Your task to perform on an android device: turn smart compose on in the gmail app Image 0: 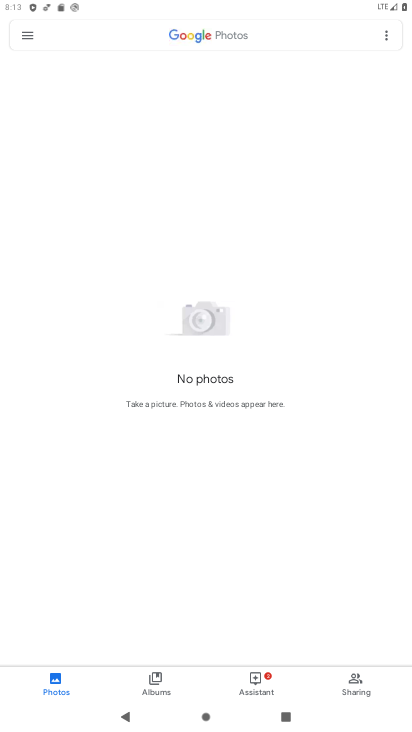
Step 0: press home button
Your task to perform on an android device: turn smart compose on in the gmail app Image 1: 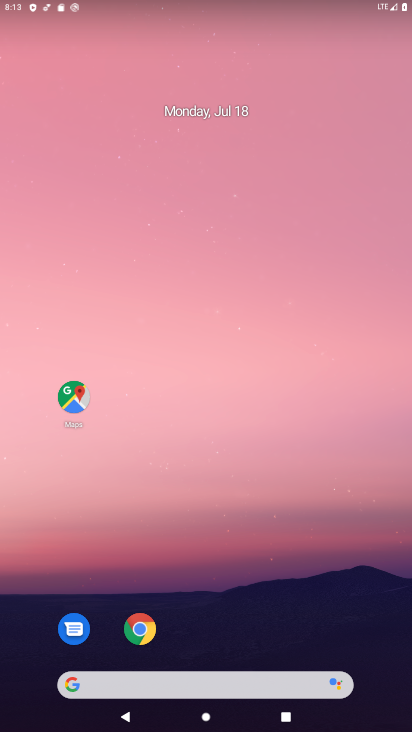
Step 1: drag from (198, 571) to (241, 49)
Your task to perform on an android device: turn smart compose on in the gmail app Image 2: 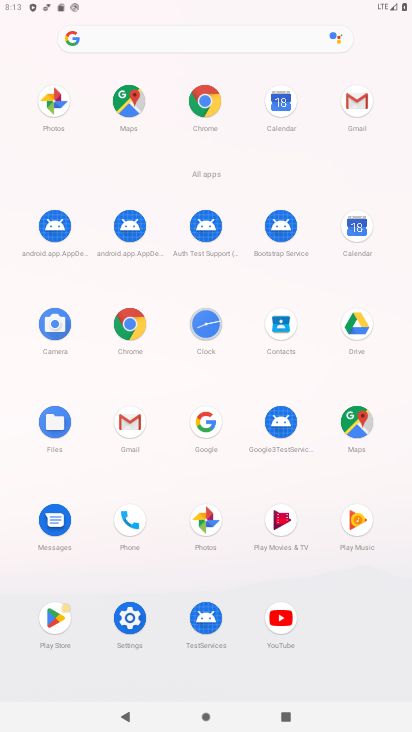
Step 2: click (135, 431)
Your task to perform on an android device: turn smart compose on in the gmail app Image 3: 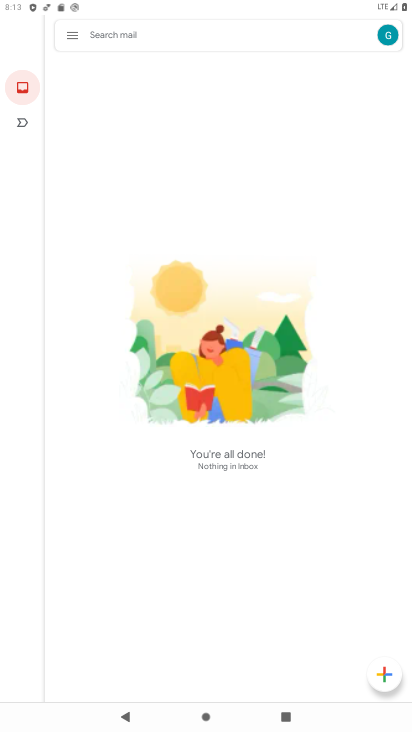
Step 3: click (59, 32)
Your task to perform on an android device: turn smart compose on in the gmail app Image 4: 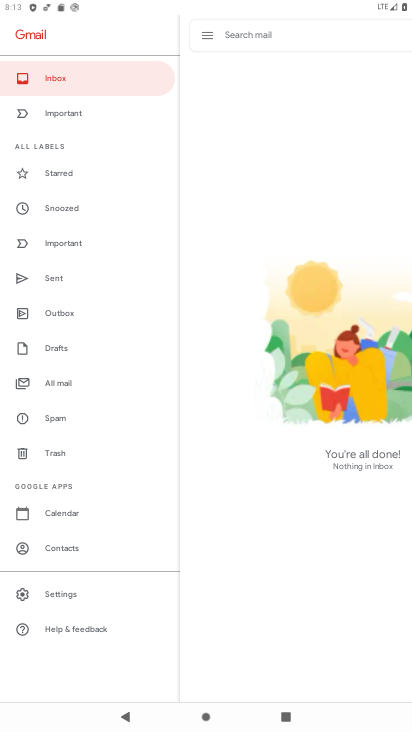
Step 4: click (61, 600)
Your task to perform on an android device: turn smart compose on in the gmail app Image 5: 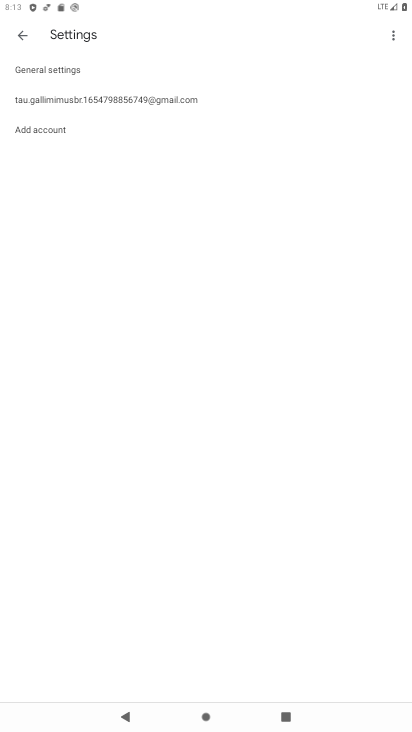
Step 5: click (81, 96)
Your task to perform on an android device: turn smart compose on in the gmail app Image 6: 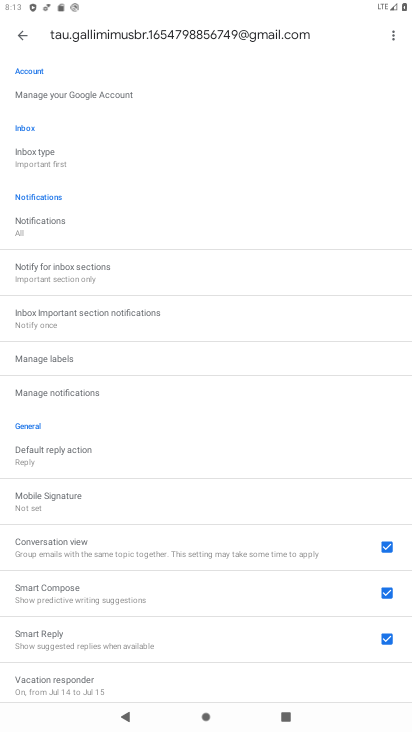
Step 6: task complete